Your task to perform on an android device: move a message to another label in the gmail app Image 0: 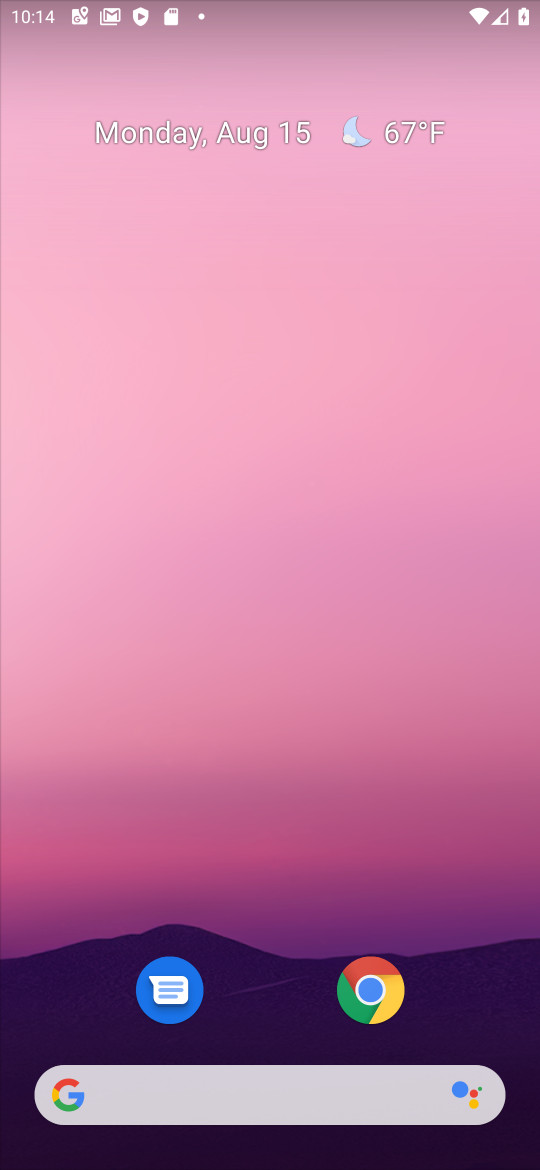
Step 0: drag from (274, 913) to (231, 397)
Your task to perform on an android device: move a message to another label in the gmail app Image 1: 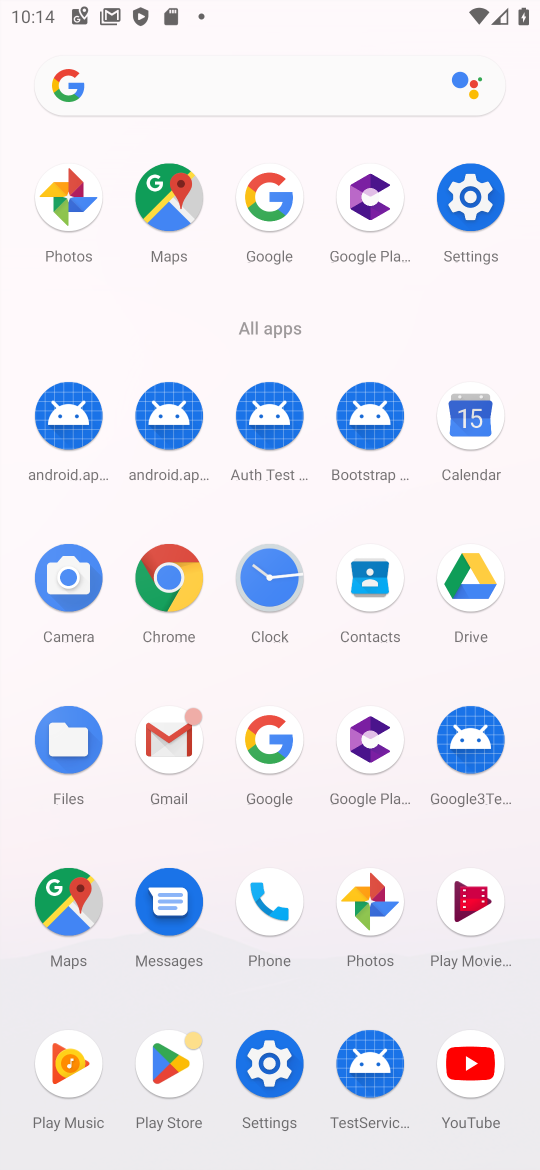
Step 1: click (168, 727)
Your task to perform on an android device: move a message to another label in the gmail app Image 2: 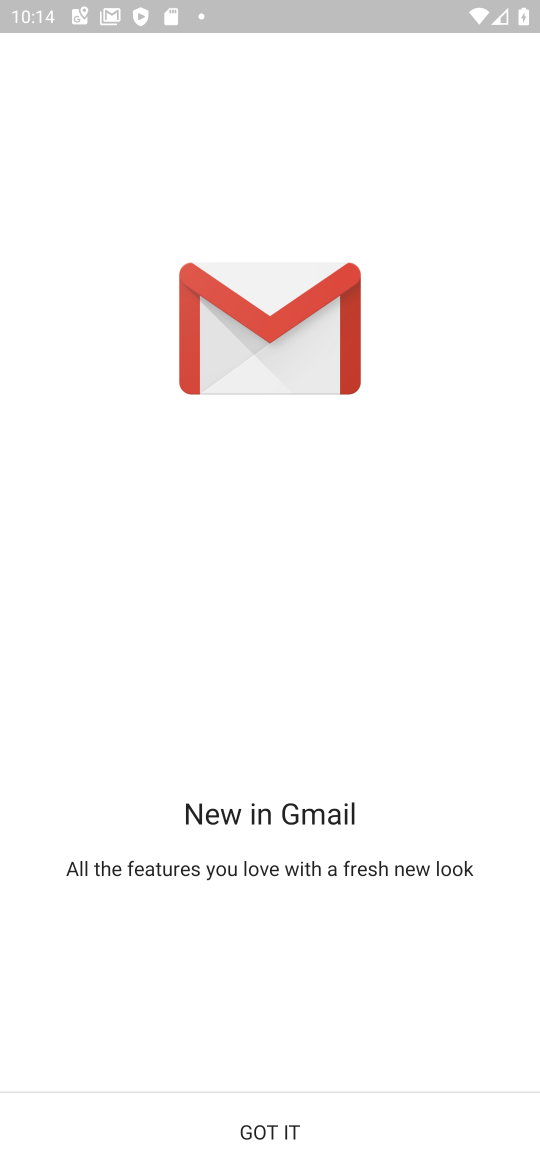
Step 2: click (269, 1134)
Your task to perform on an android device: move a message to another label in the gmail app Image 3: 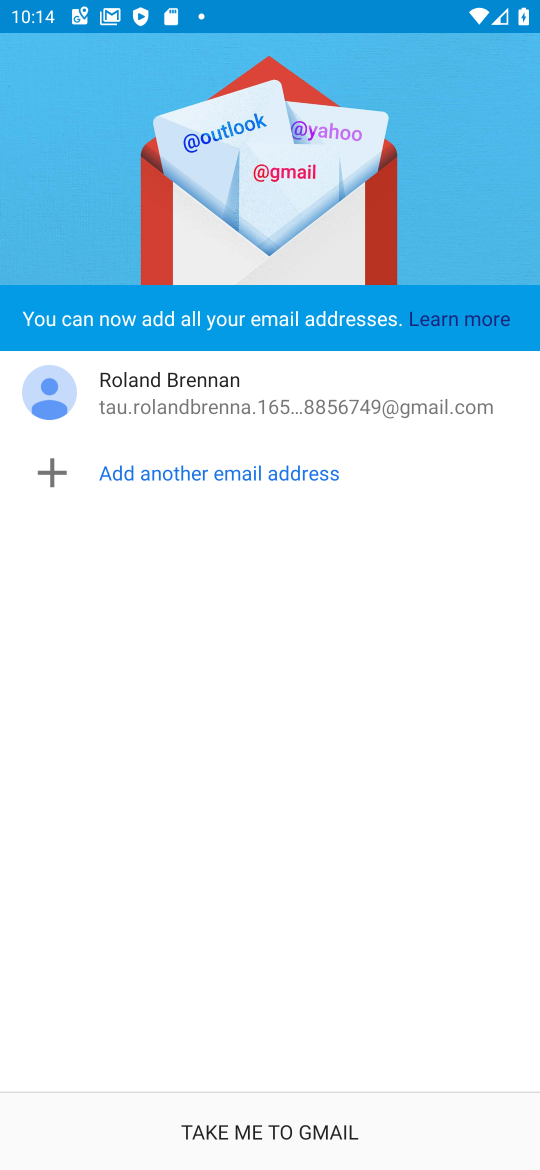
Step 3: click (207, 367)
Your task to perform on an android device: move a message to another label in the gmail app Image 4: 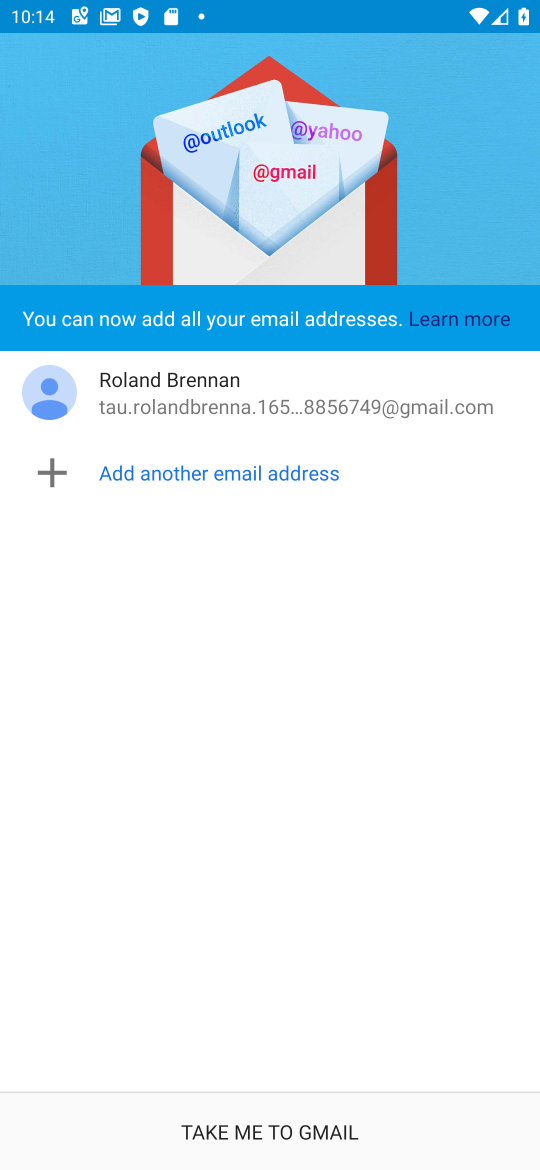
Step 4: click (278, 1113)
Your task to perform on an android device: move a message to another label in the gmail app Image 5: 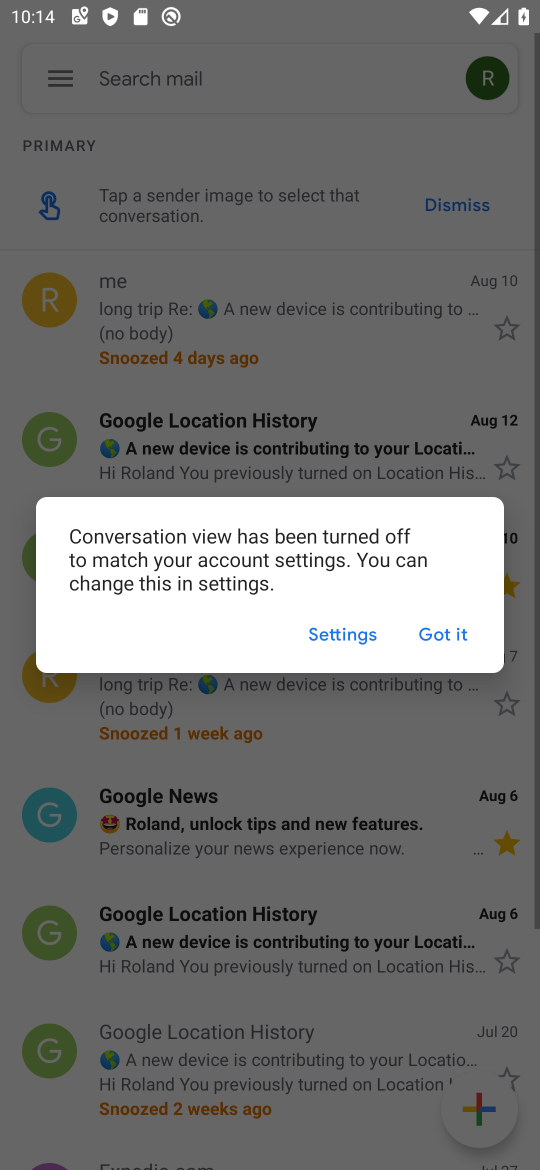
Step 5: click (442, 635)
Your task to perform on an android device: move a message to another label in the gmail app Image 6: 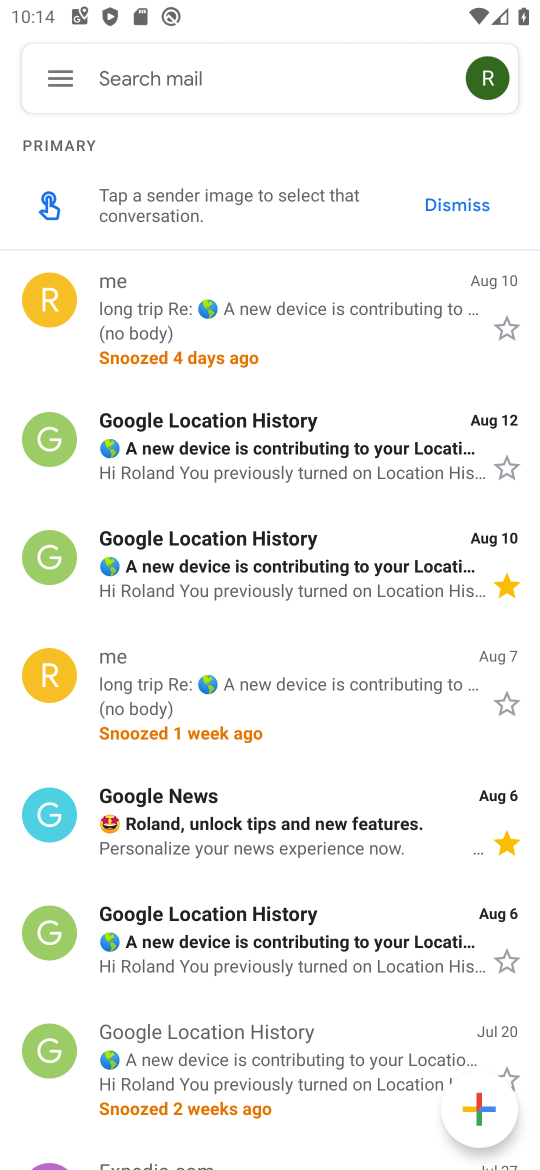
Step 6: click (185, 425)
Your task to perform on an android device: move a message to another label in the gmail app Image 7: 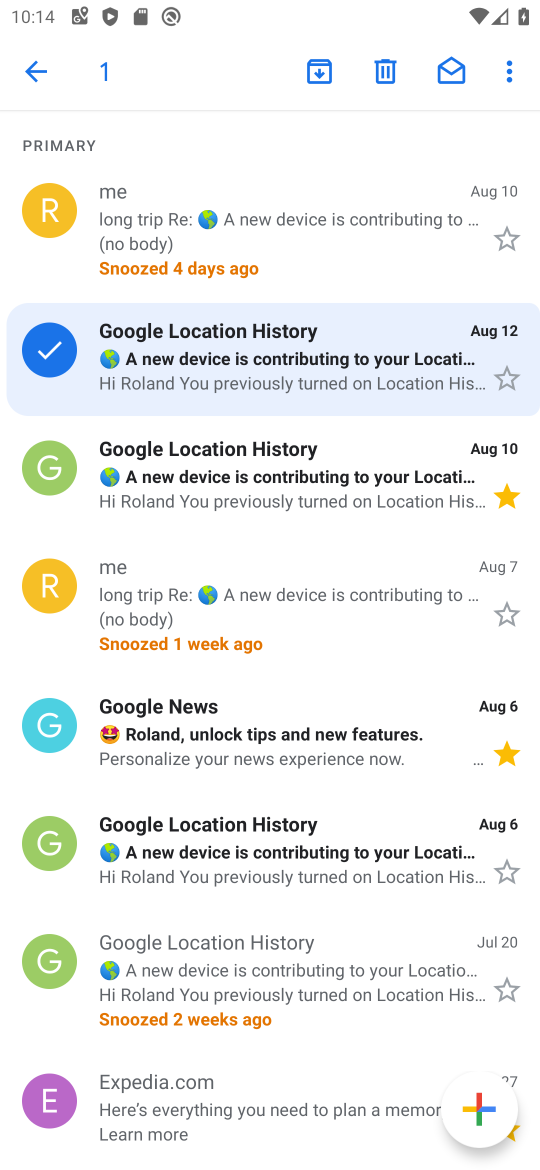
Step 7: click (212, 344)
Your task to perform on an android device: move a message to another label in the gmail app Image 8: 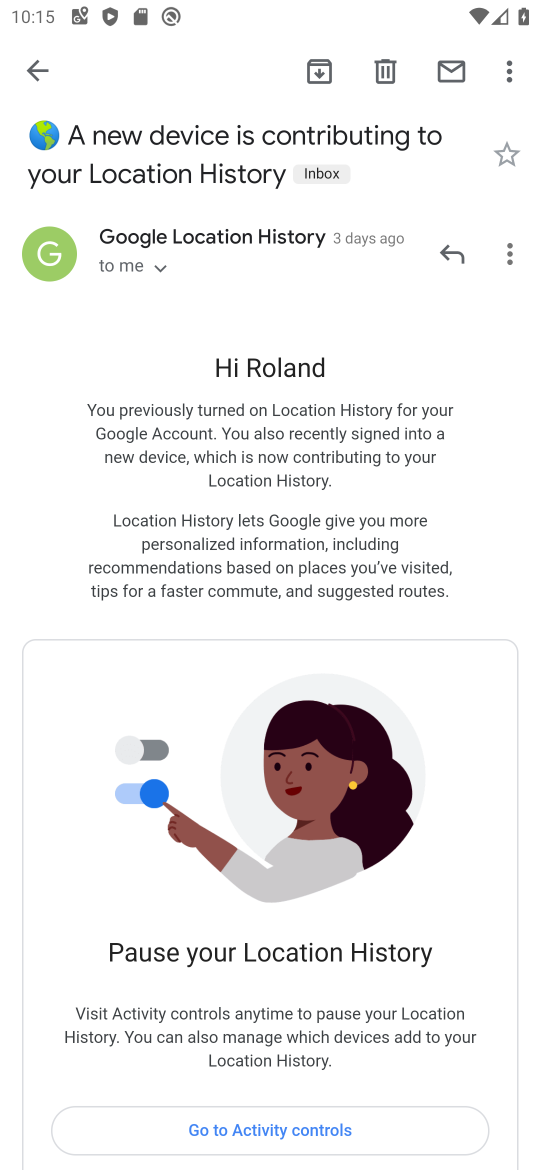
Step 8: click (511, 61)
Your task to perform on an android device: move a message to another label in the gmail app Image 9: 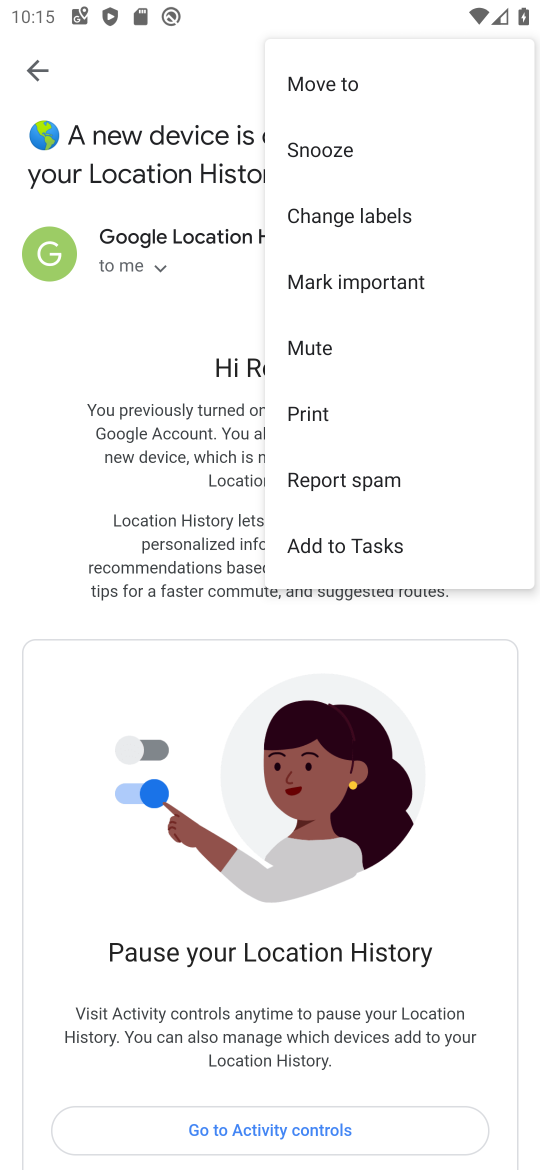
Step 9: click (345, 88)
Your task to perform on an android device: move a message to another label in the gmail app Image 10: 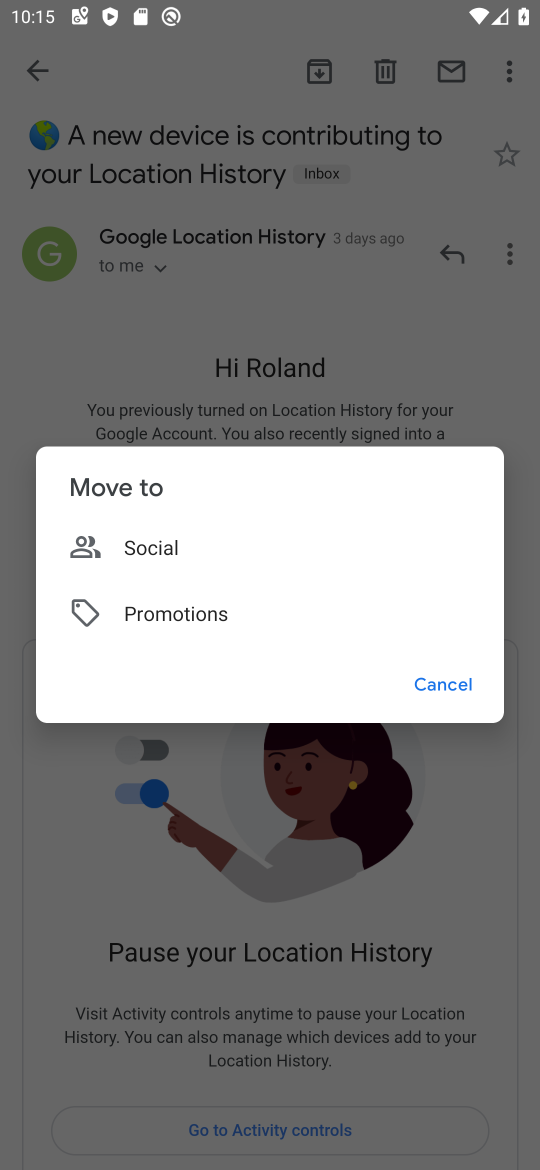
Step 10: click (141, 610)
Your task to perform on an android device: move a message to another label in the gmail app Image 11: 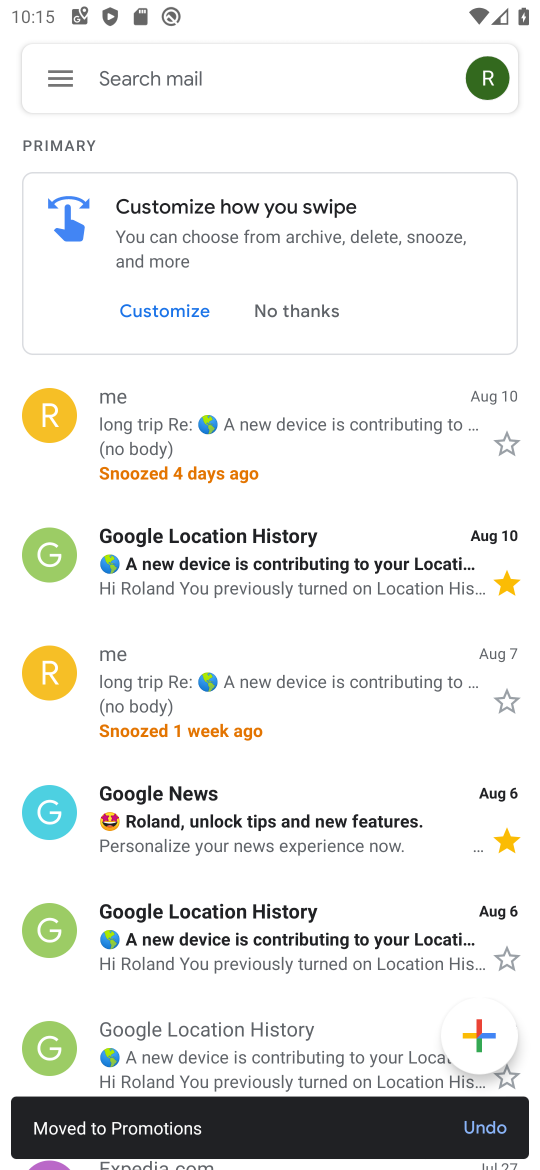
Step 11: task complete